Your task to perform on an android device: open a new tab in the chrome app Image 0: 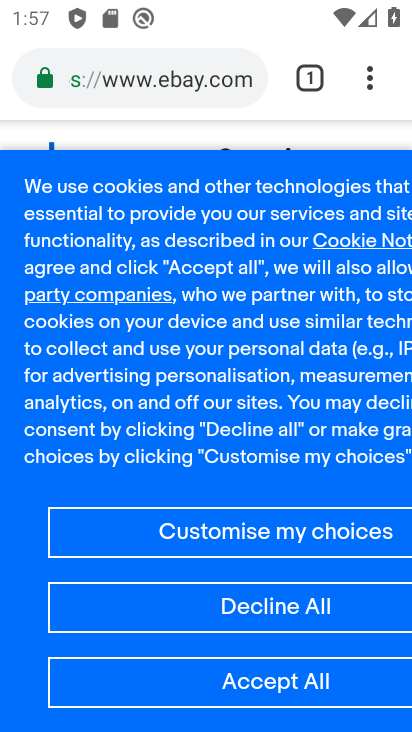
Step 0: press home button
Your task to perform on an android device: open a new tab in the chrome app Image 1: 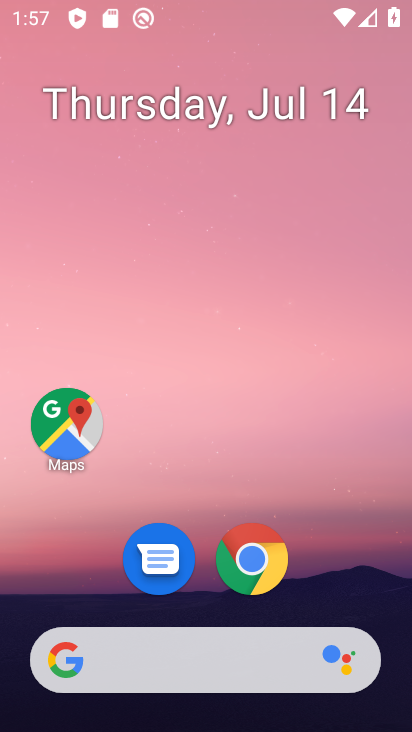
Step 1: drag from (211, 614) to (260, 116)
Your task to perform on an android device: open a new tab in the chrome app Image 2: 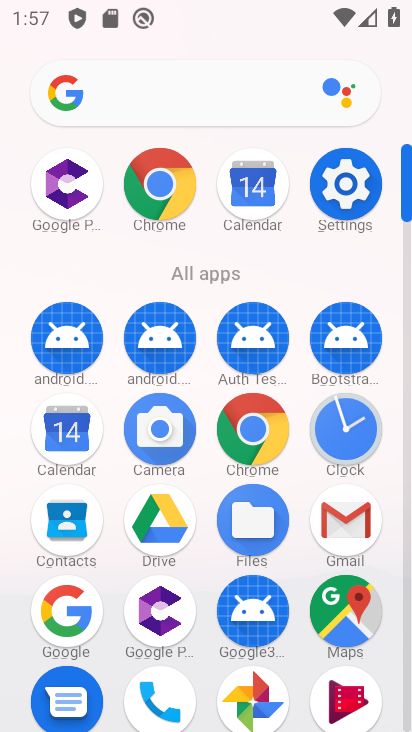
Step 2: click (273, 436)
Your task to perform on an android device: open a new tab in the chrome app Image 3: 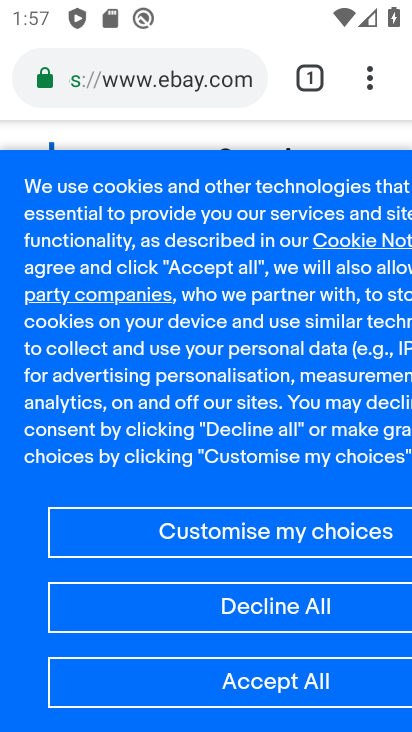
Step 3: drag from (313, 76) to (316, 275)
Your task to perform on an android device: open a new tab in the chrome app Image 4: 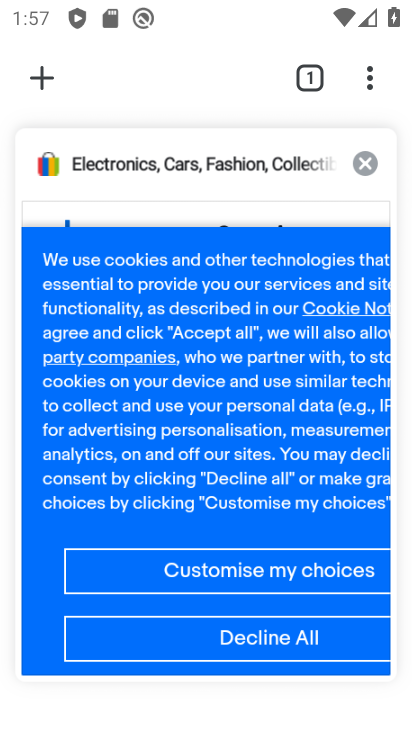
Step 4: click (45, 76)
Your task to perform on an android device: open a new tab in the chrome app Image 5: 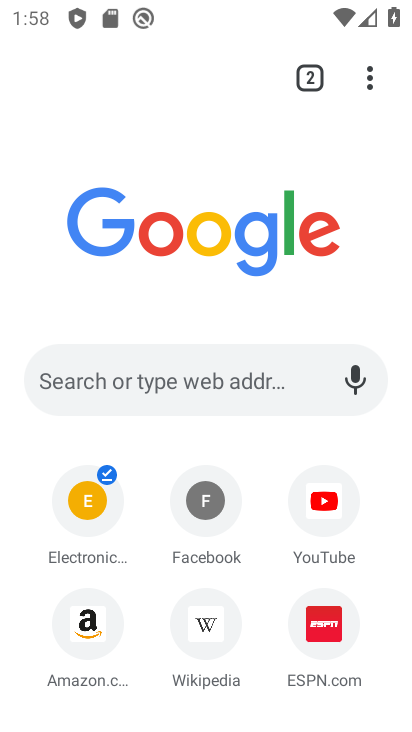
Step 5: task complete